Your task to perform on an android device: Open privacy settings Image 0: 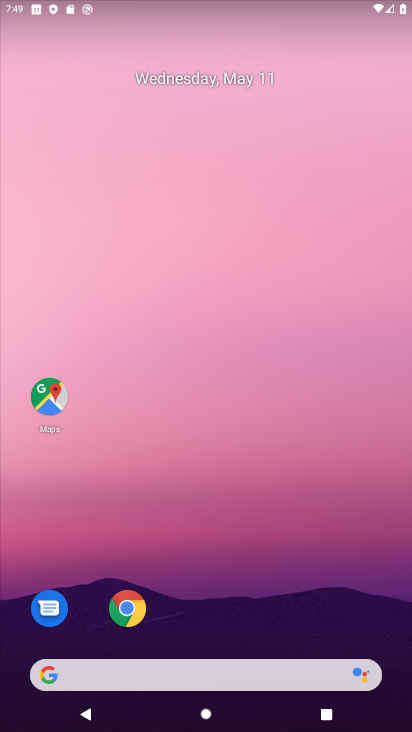
Step 0: drag from (255, 584) to (180, 60)
Your task to perform on an android device: Open privacy settings Image 1: 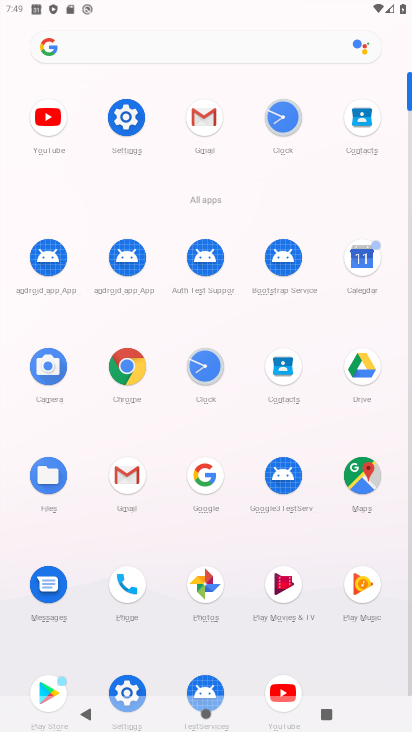
Step 1: click (130, 110)
Your task to perform on an android device: Open privacy settings Image 2: 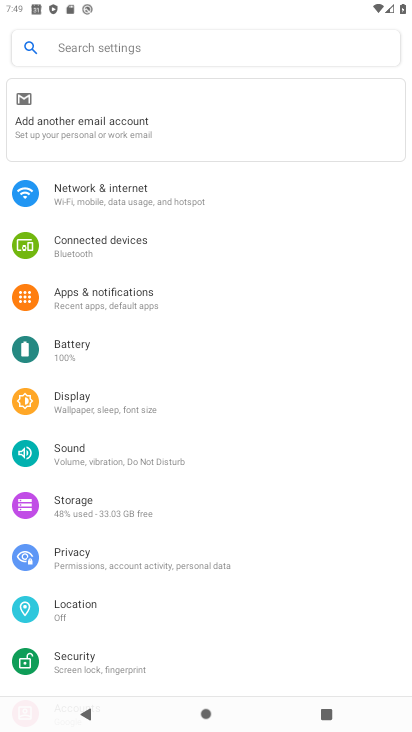
Step 2: drag from (192, 598) to (212, 238)
Your task to perform on an android device: Open privacy settings Image 3: 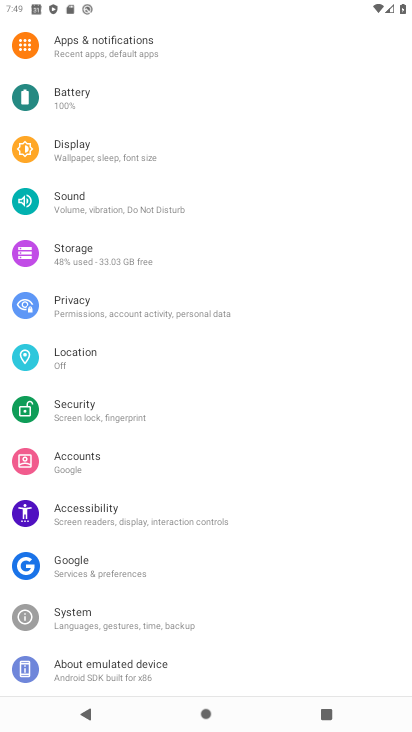
Step 3: click (122, 307)
Your task to perform on an android device: Open privacy settings Image 4: 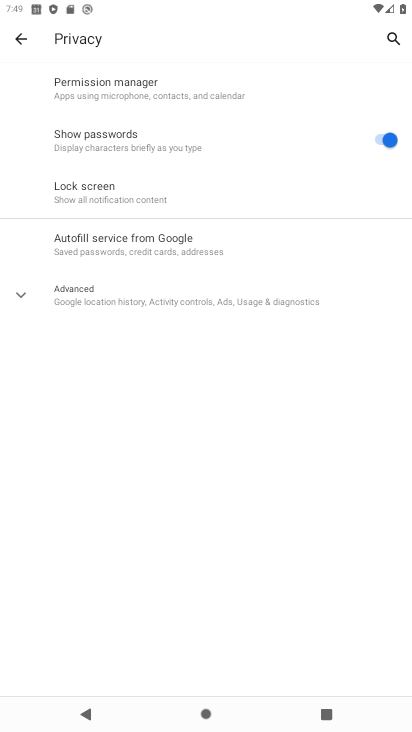
Step 4: task complete